Your task to perform on an android device: Open Yahoo.com Image 0: 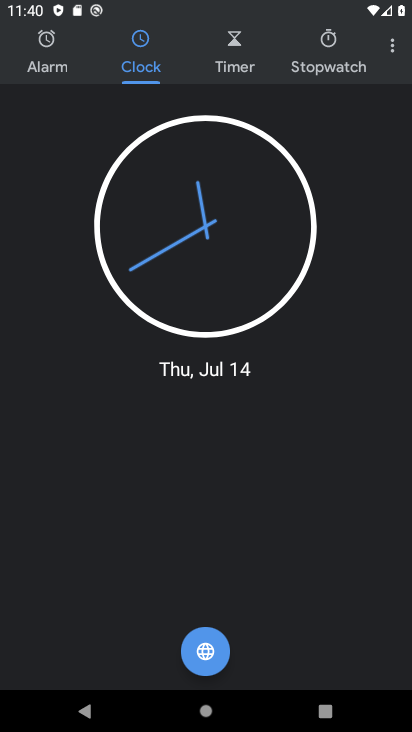
Step 0: press home button
Your task to perform on an android device: Open Yahoo.com Image 1: 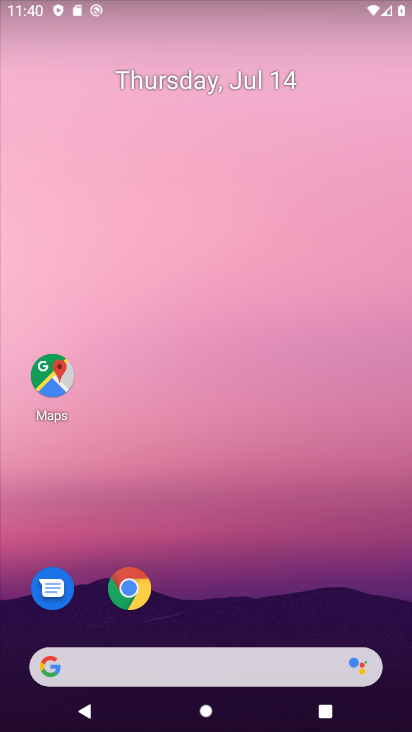
Step 1: click (108, 658)
Your task to perform on an android device: Open Yahoo.com Image 2: 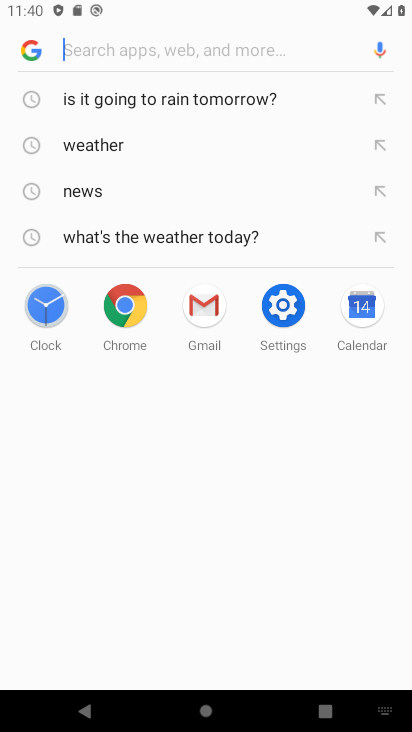
Step 2: type "yahoo.com"
Your task to perform on an android device: Open Yahoo.com Image 3: 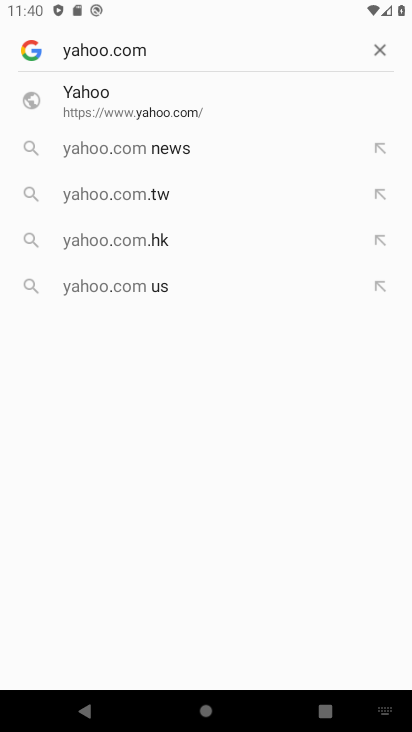
Step 3: click (250, 107)
Your task to perform on an android device: Open Yahoo.com Image 4: 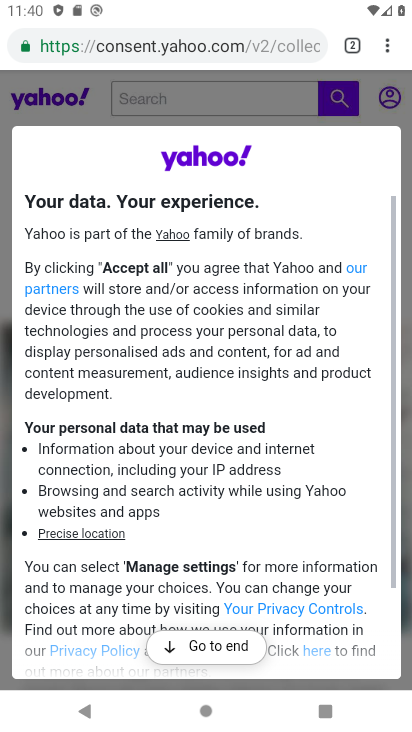
Step 4: task complete